Your task to perform on an android device: change your default location settings in chrome Image 0: 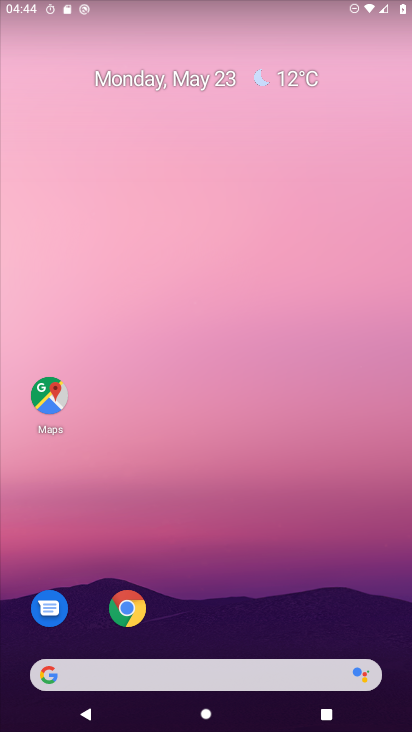
Step 0: drag from (285, 593) to (221, 83)
Your task to perform on an android device: change your default location settings in chrome Image 1: 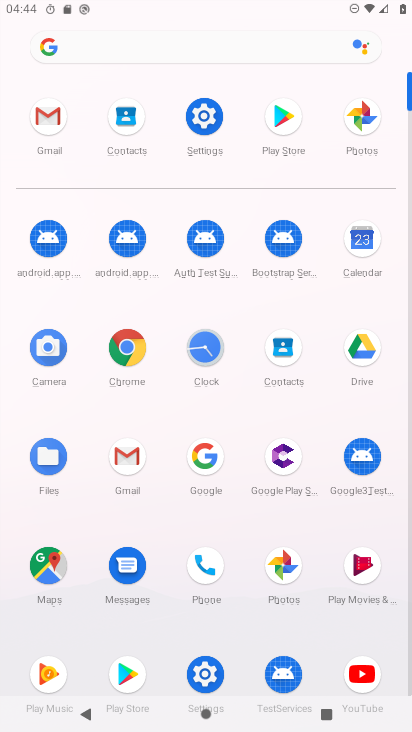
Step 1: click (121, 350)
Your task to perform on an android device: change your default location settings in chrome Image 2: 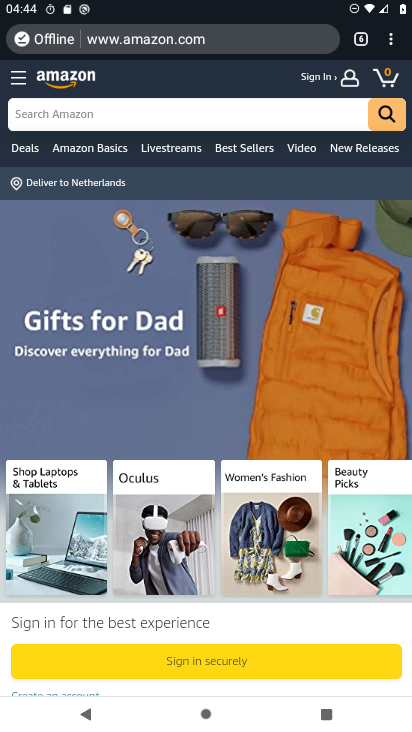
Step 2: click (389, 33)
Your task to perform on an android device: change your default location settings in chrome Image 3: 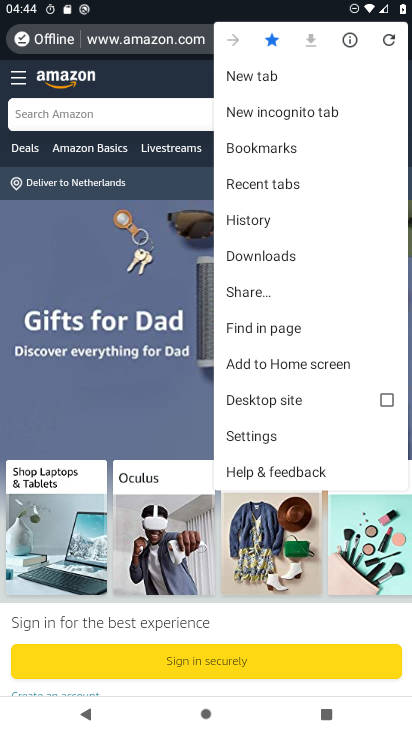
Step 3: click (303, 425)
Your task to perform on an android device: change your default location settings in chrome Image 4: 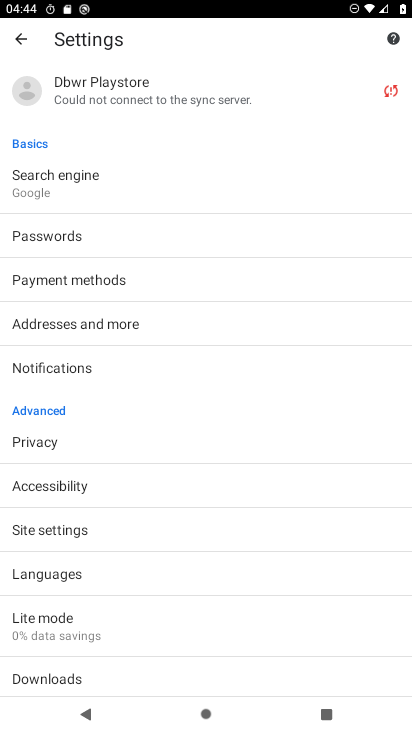
Step 4: click (151, 530)
Your task to perform on an android device: change your default location settings in chrome Image 5: 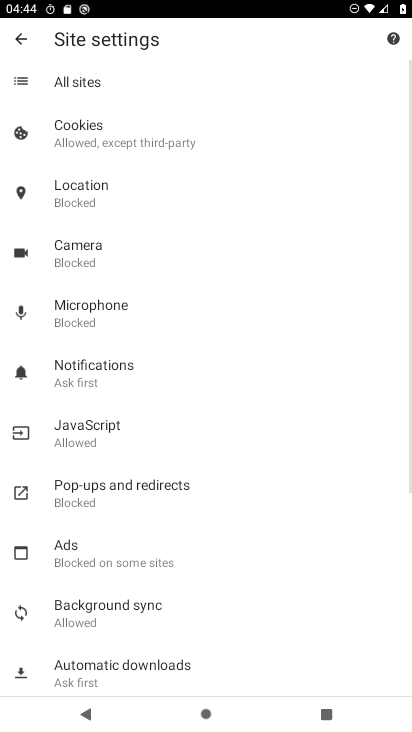
Step 5: click (211, 208)
Your task to perform on an android device: change your default location settings in chrome Image 6: 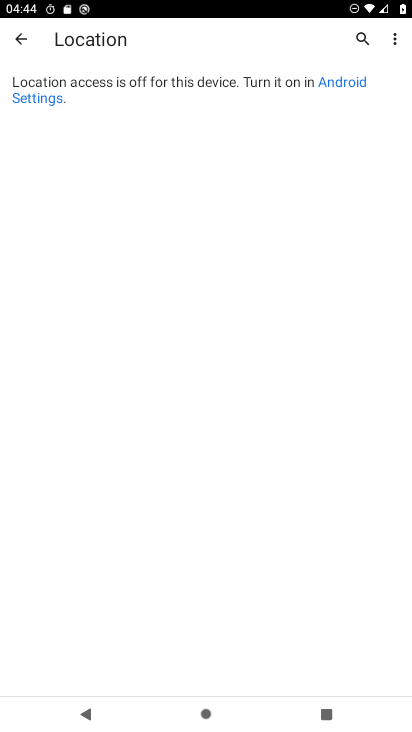
Step 6: click (336, 73)
Your task to perform on an android device: change your default location settings in chrome Image 7: 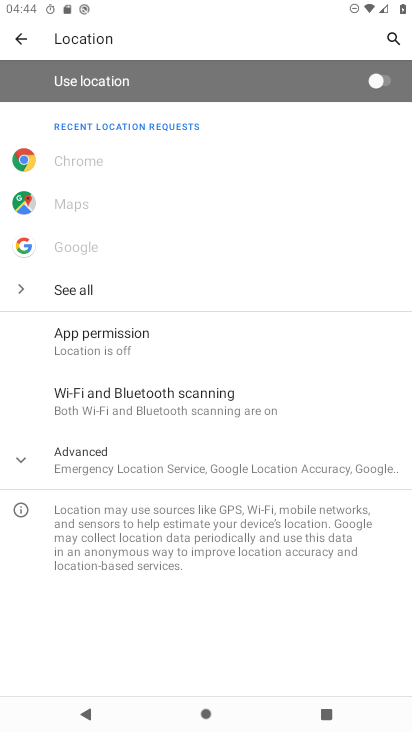
Step 7: click (360, 93)
Your task to perform on an android device: change your default location settings in chrome Image 8: 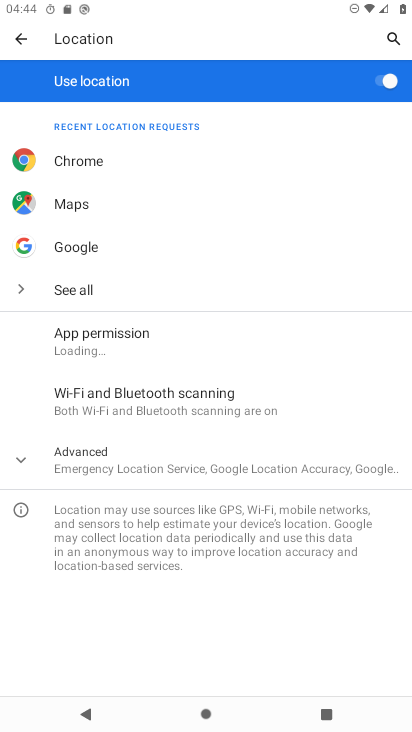
Step 8: task complete